Your task to perform on an android device: search for starred emails in the gmail app Image 0: 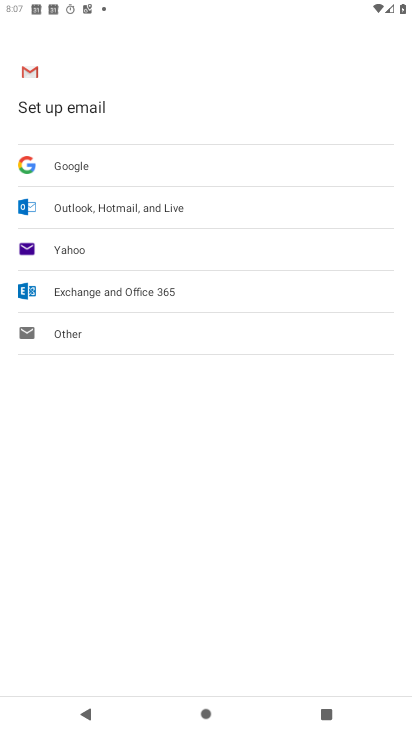
Step 0: press home button
Your task to perform on an android device: search for starred emails in the gmail app Image 1: 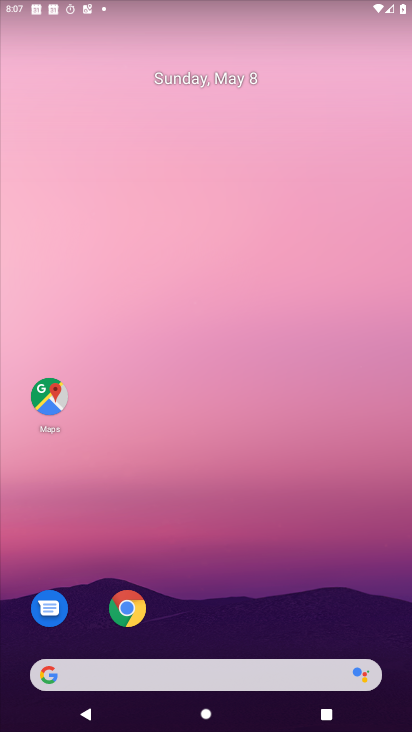
Step 1: drag from (280, 602) to (349, 160)
Your task to perform on an android device: search for starred emails in the gmail app Image 2: 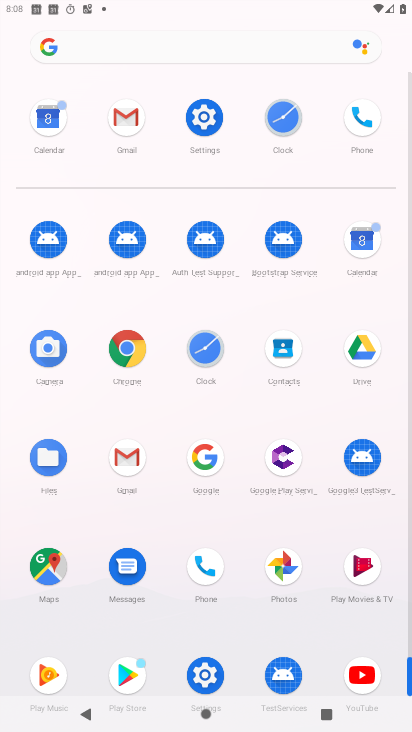
Step 2: click (133, 452)
Your task to perform on an android device: search for starred emails in the gmail app Image 3: 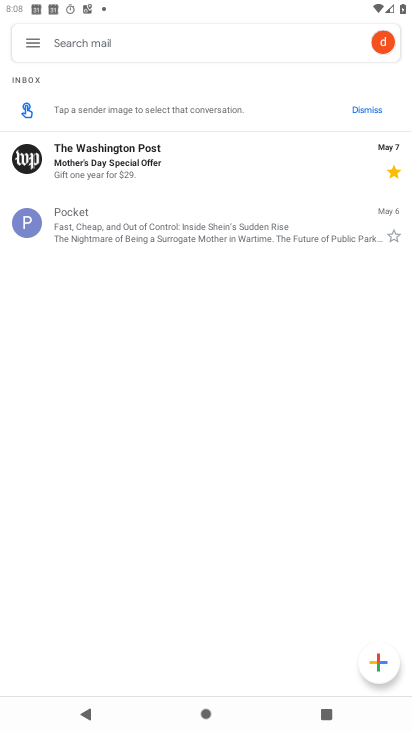
Step 3: click (35, 42)
Your task to perform on an android device: search for starred emails in the gmail app Image 4: 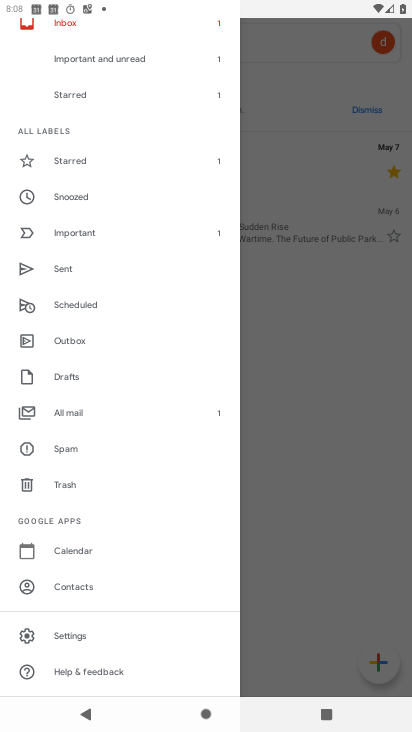
Step 4: click (75, 169)
Your task to perform on an android device: search for starred emails in the gmail app Image 5: 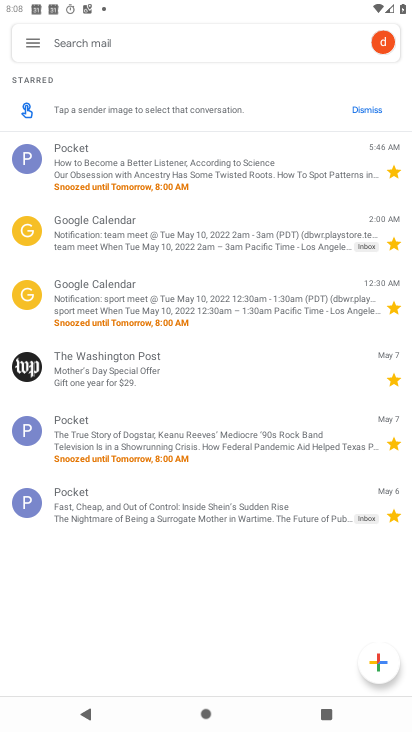
Step 5: task complete